Your task to perform on an android device: open wifi settings Image 0: 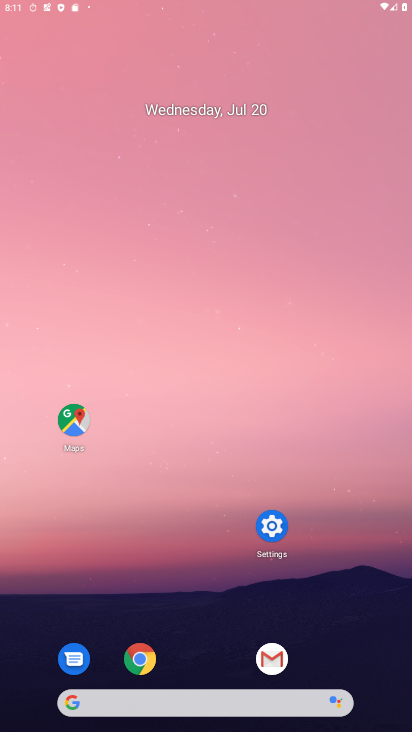
Step 0: press home button
Your task to perform on an android device: open wifi settings Image 1: 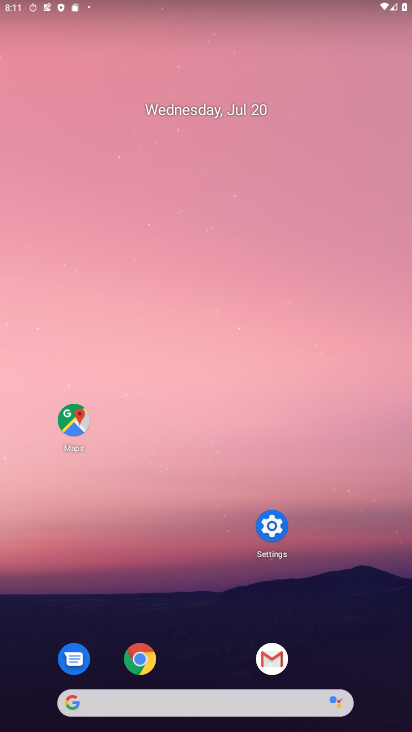
Step 1: click (269, 536)
Your task to perform on an android device: open wifi settings Image 2: 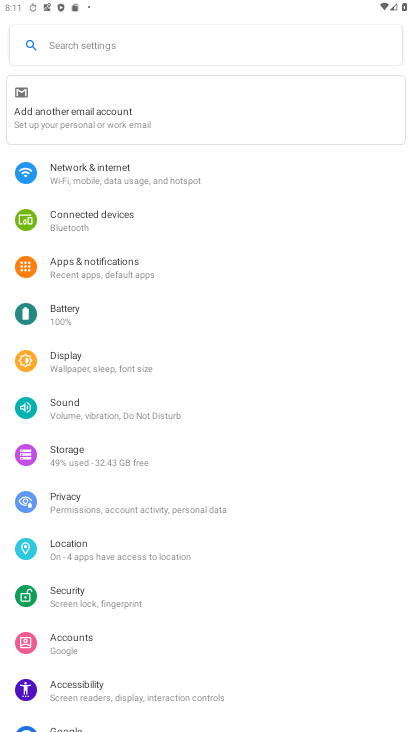
Step 2: click (112, 177)
Your task to perform on an android device: open wifi settings Image 3: 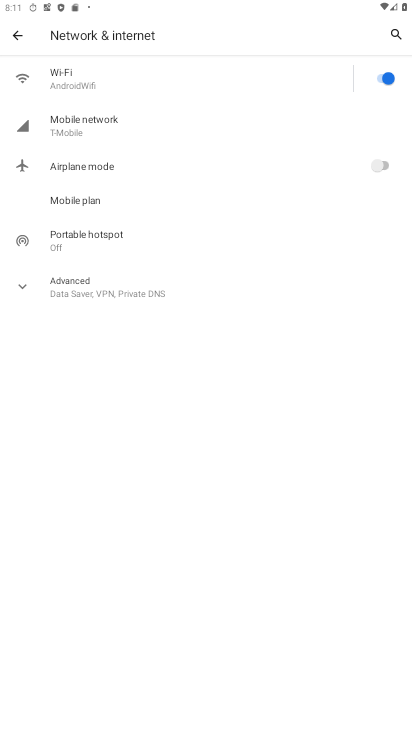
Step 3: click (112, 80)
Your task to perform on an android device: open wifi settings Image 4: 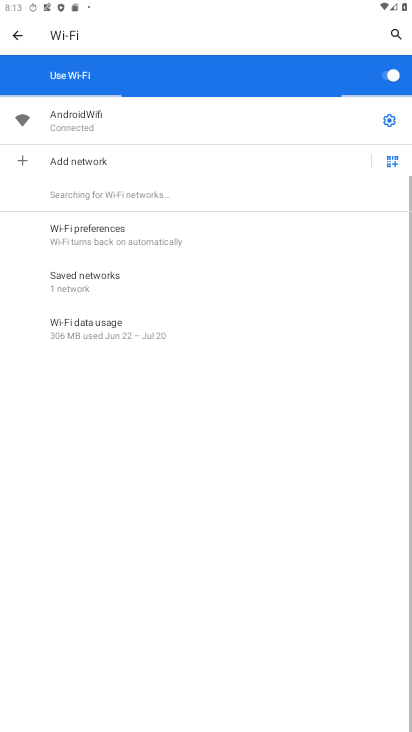
Step 4: task complete